Your task to perform on an android device: turn pop-ups off in chrome Image 0: 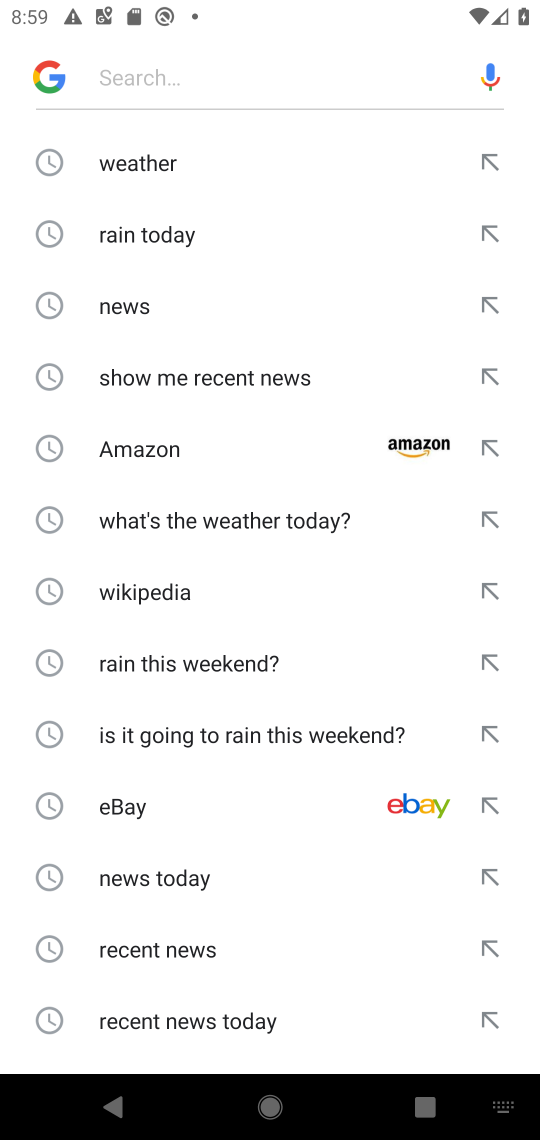
Step 0: press home button
Your task to perform on an android device: turn pop-ups off in chrome Image 1: 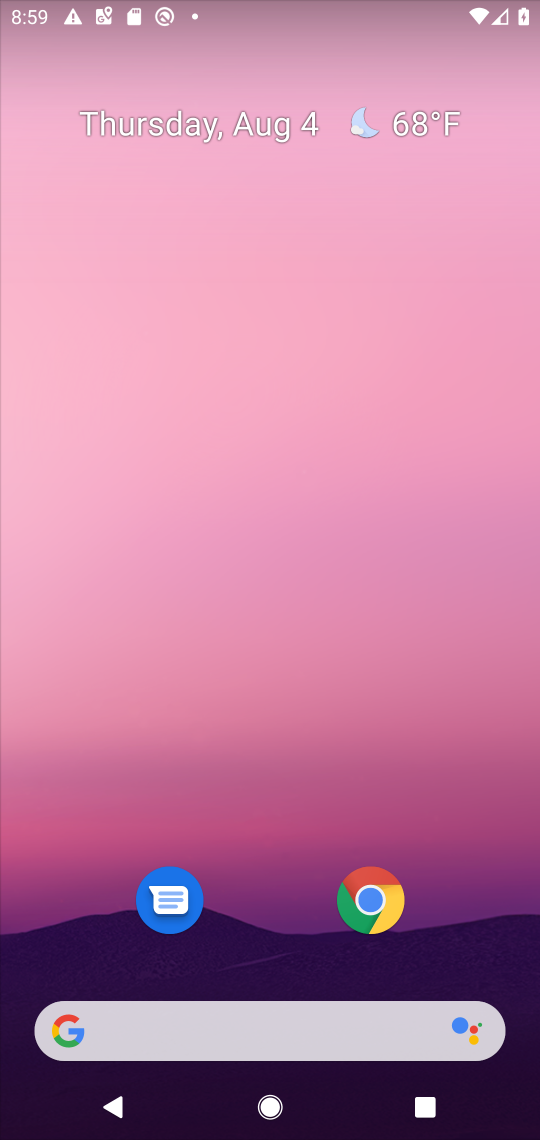
Step 1: click (375, 908)
Your task to perform on an android device: turn pop-ups off in chrome Image 2: 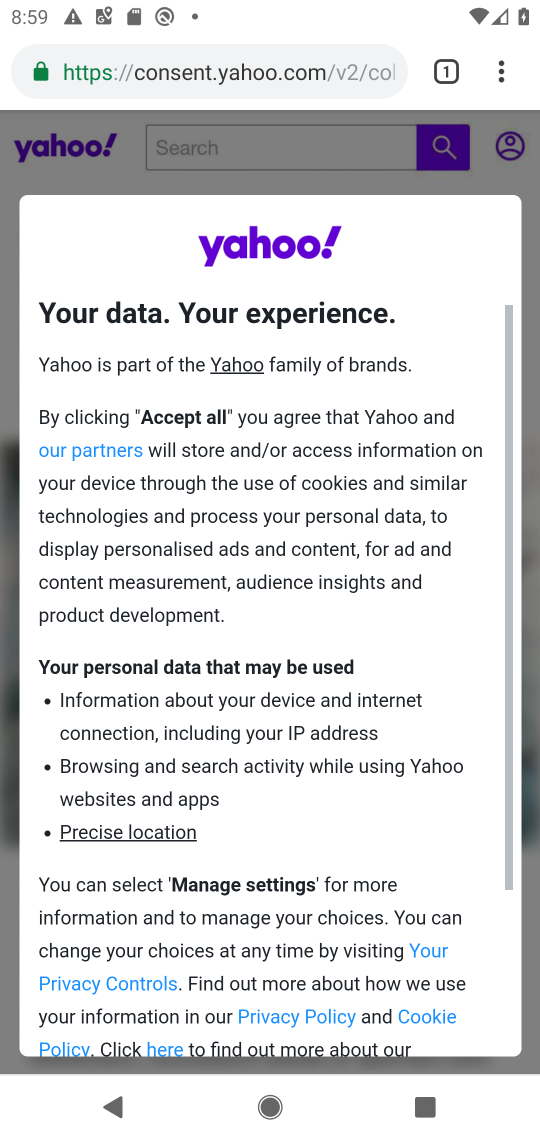
Step 2: click (505, 66)
Your task to perform on an android device: turn pop-ups off in chrome Image 3: 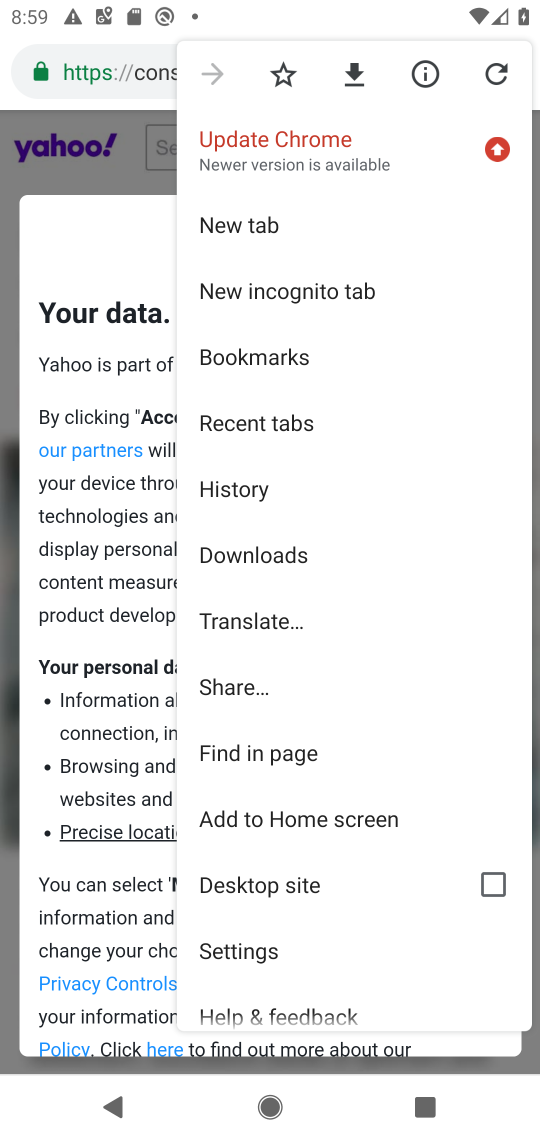
Step 3: click (223, 949)
Your task to perform on an android device: turn pop-ups off in chrome Image 4: 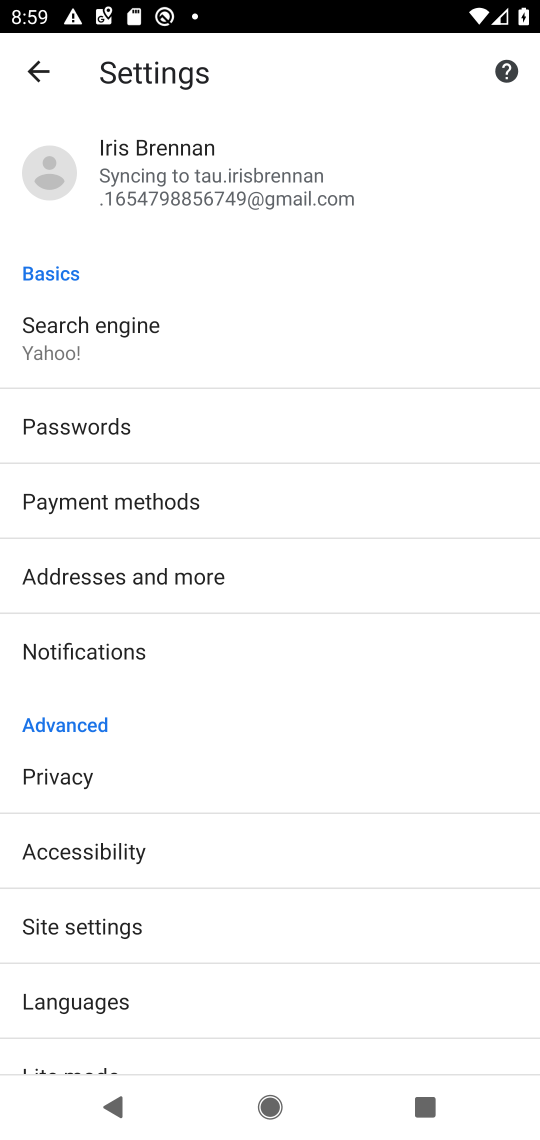
Step 4: click (99, 928)
Your task to perform on an android device: turn pop-ups off in chrome Image 5: 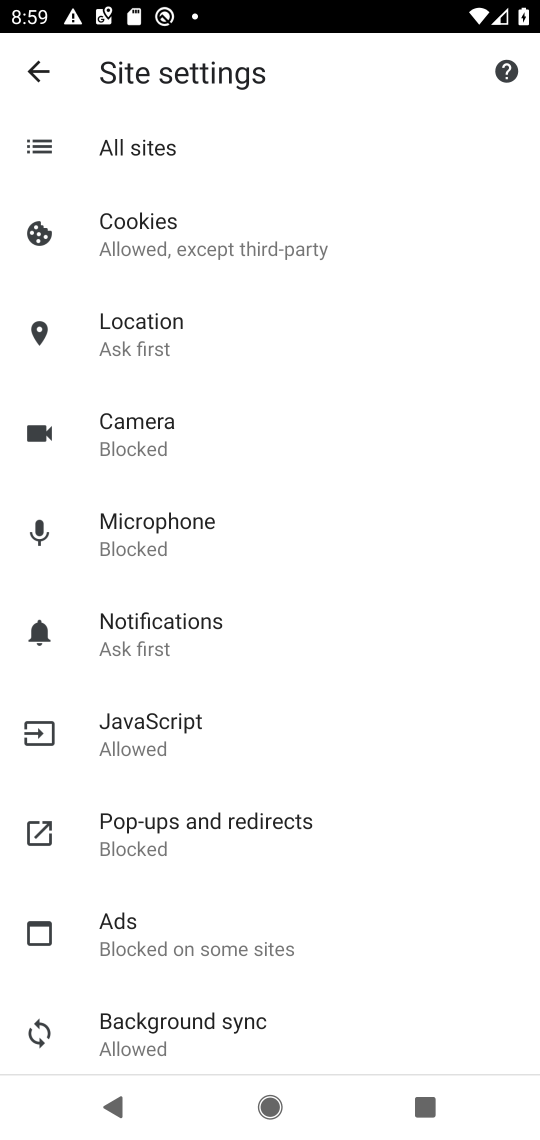
Step 5: click (241, 832)
Your task to perform on an android device: turn pop-ups off in chrome Image 6: 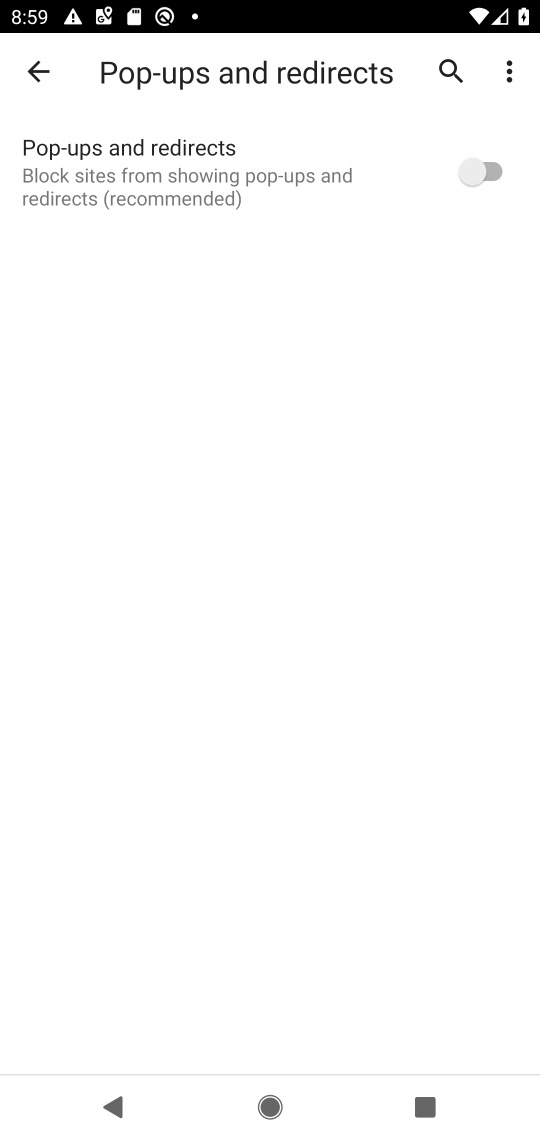
Step 6: task complete